Your task to perform on an android device: toggle wifi Image 0: 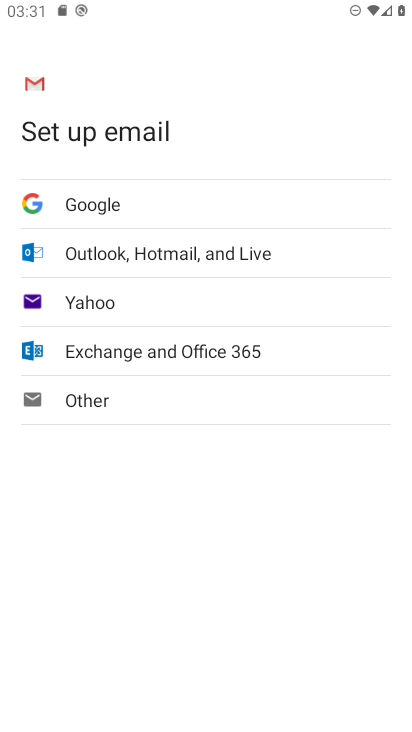
Step 0: press home button
Your task to perform on an android device: toggle wifi Image 1: 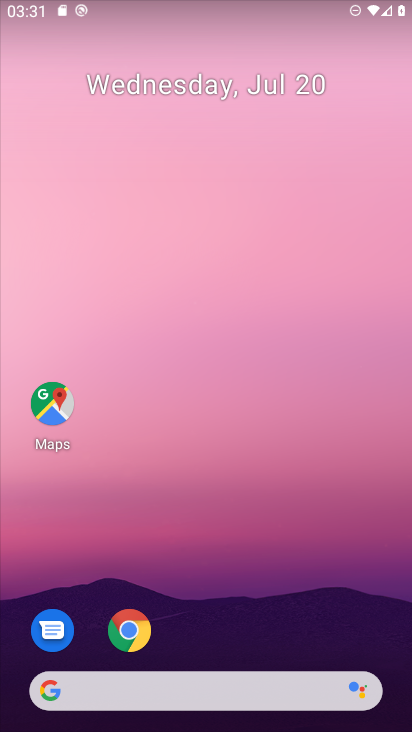
Step 1: drag from (372, 618) to (375, 79)
Your task to perform on an android device: toggle wifi Image 2: 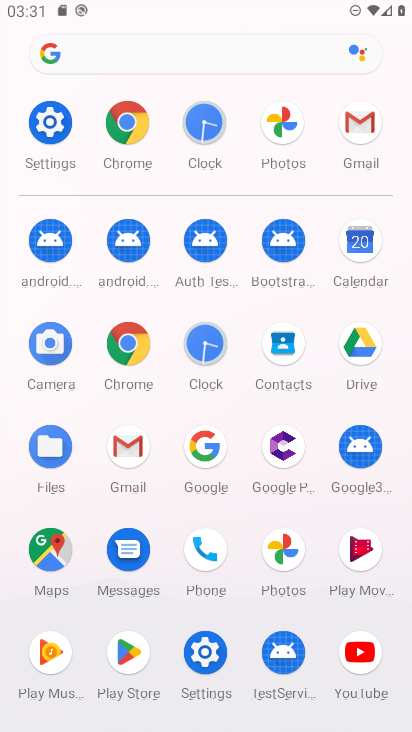
Step 2: click (55, 125)
Your task to perform on an android device: toggle wifi Image 3: 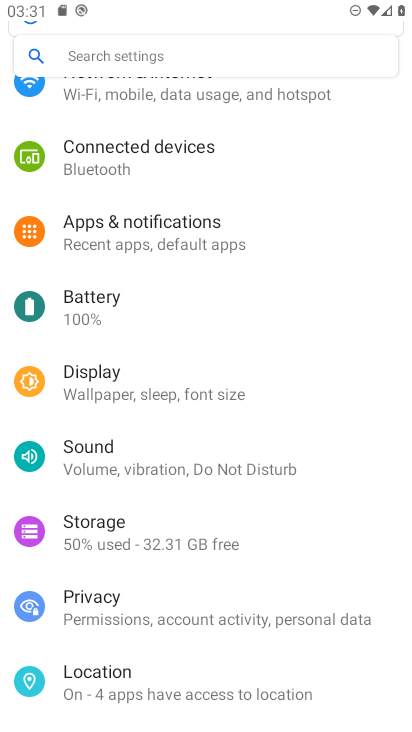
Step 3: drag from (331, 196) to (331, 347)
Your task to perform on an android device: toggle wifi Image 4: 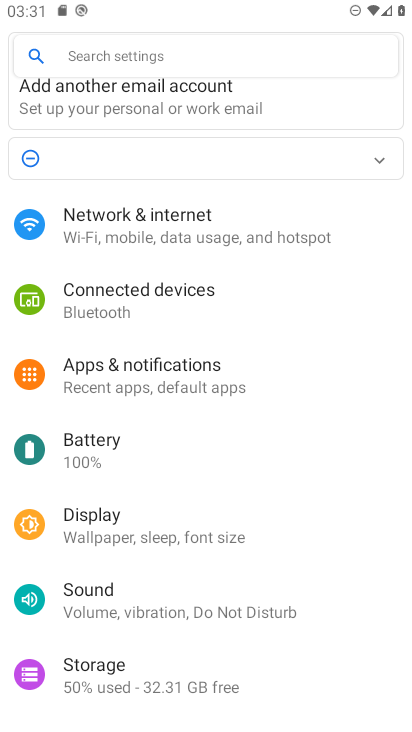
Step 4: drag from (345, 277) to (340, 421)
Your task to perform on an android device: toggle wifi Image 5: 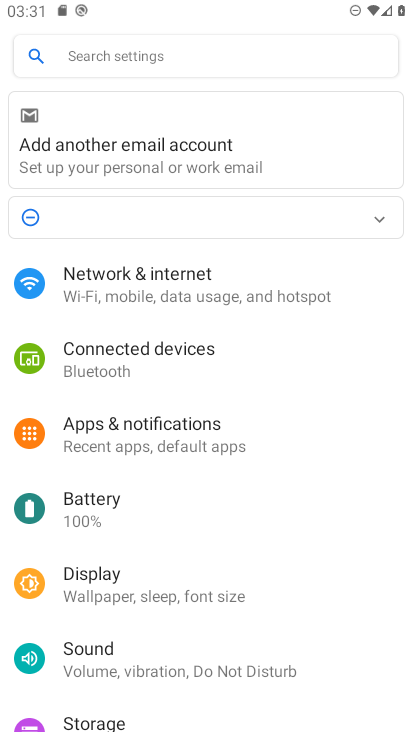
Step 5: click (270, 288)
Your task to perform on an android device: toggle wifi Image 6: 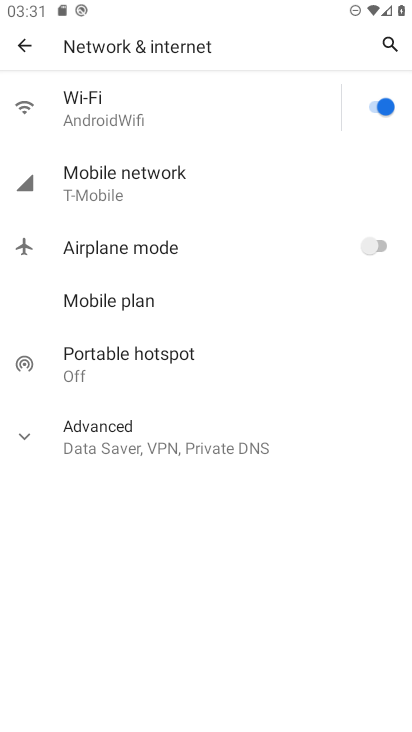
Step 6: click (135, 111)
Your task to perform on an android device: toggle wifi Image 7: 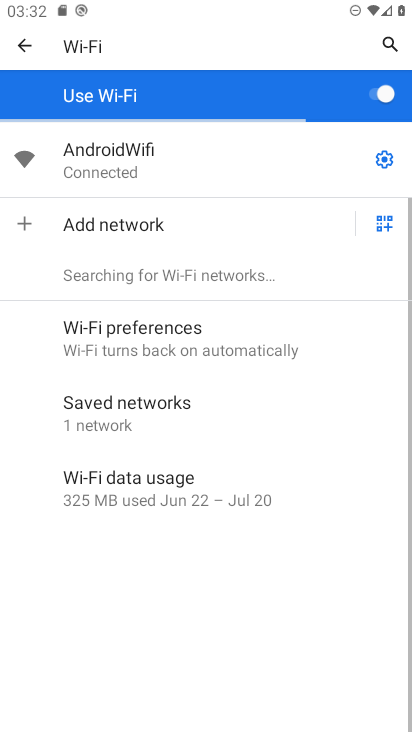
Step 7: task complete